Your task to perform on an android device: open app "YouTube Kids" (install if not already installed) Image 0: 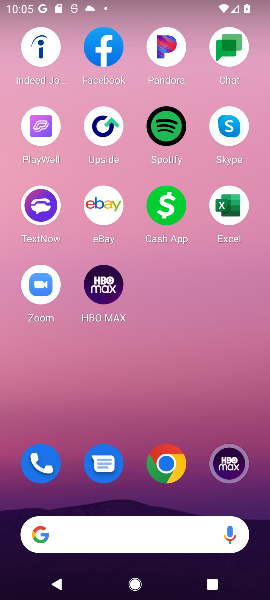
Step 0: drag from (131, 424) to (185, 11)
Your task to perform on an android device: open app "YouTube Kids" (install if not already installed) Image 1: 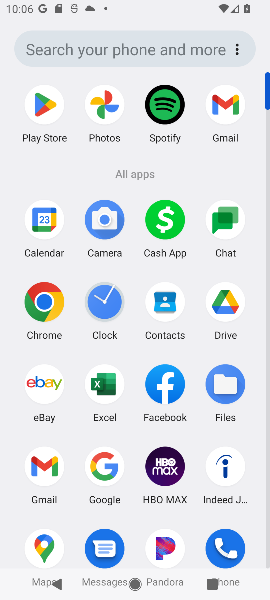
Step 1: drag from (137, 512) to (171, 51)
Your task to perform on an android device: open app "YouTube Kids" (install if not already installed) Image 2: 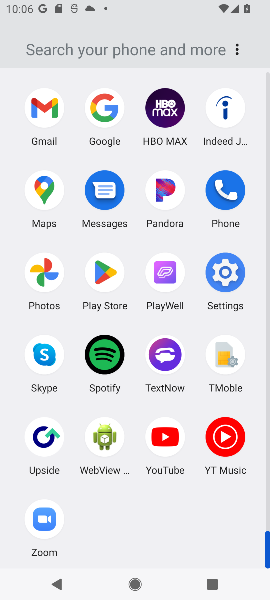
Step 2: click (102, 268)
Your task to perform on an android device: open app "YouTube Kids" (install if not already installed) Image 3: 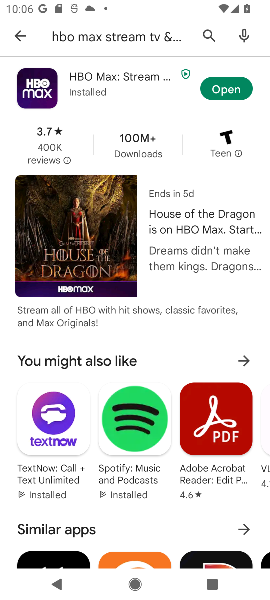
Step 3: click (206, 30)
Your task to perform on an android device: open app "YouTube Kids" (install if not already installed) Image 4: 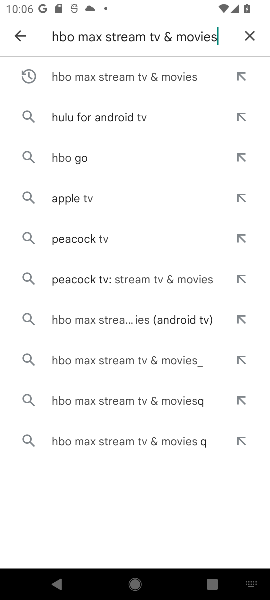
Step 4: click (250, 37)
Your task to perform on an android device: open app "YouTube Kids" (install if not already installed) Image 5: 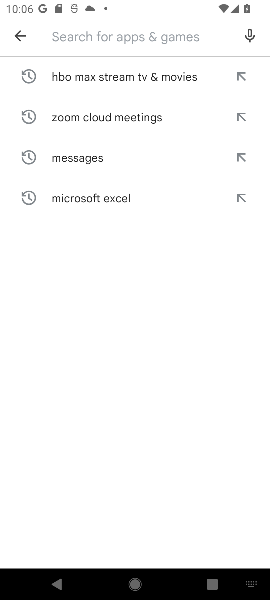
Step 5: type "YouTube Kids"
Your task to perform on an android device: open app "YouTube Kids" (install if not already installed) Image 6: 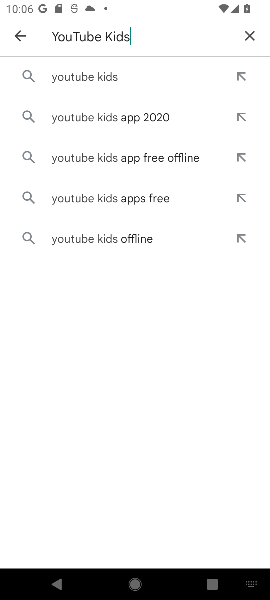
Step 6: click (116, 69)
Your task to perform on an android device: open app "YouTube Kids" (install if not already installed) Image 7: 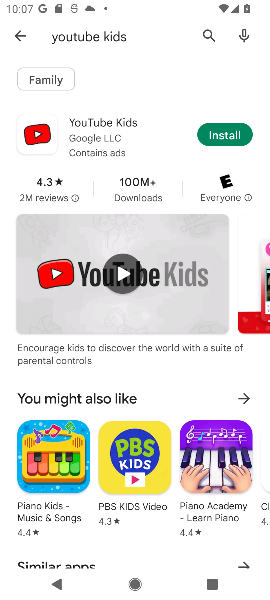
Step 7: click (232, 137)
Your task to perform on an android device: open app "YouTube Kids" (install if not already installed) Image 8: 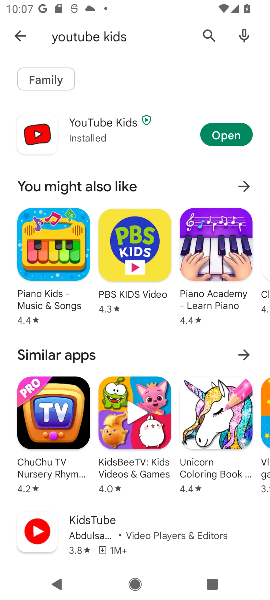
Step 8: click (232, 134)
Your task to perform on an android device: open app "YouTube Kids" (install if not already installed) Image 9: 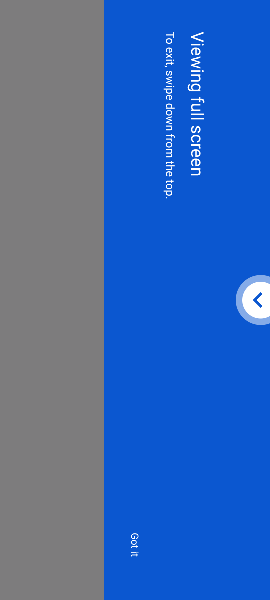
Step 9: task complete